Your task to perform on an android device: turn off notifications settings in the gmail app Image 0: 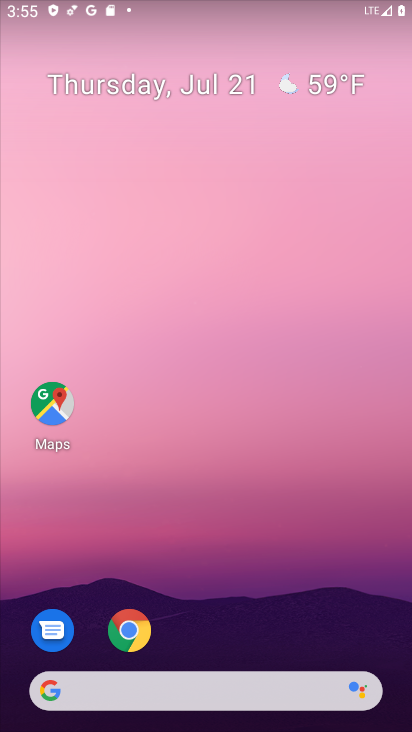
Step 0: drag from (267, 678) to (211, 61)
Your task to perform on an android device: turn off notifications settings in the gmail app Image 1: 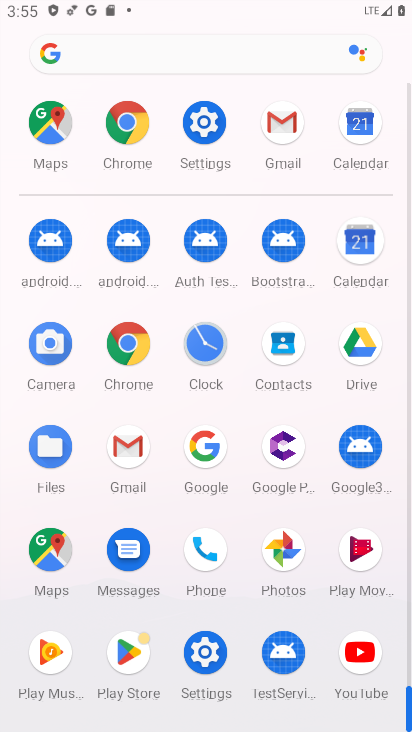
Step 1: click (115, 439)
Your task to perform on an android device: turn off notifications settings in the gmail app Image 2: 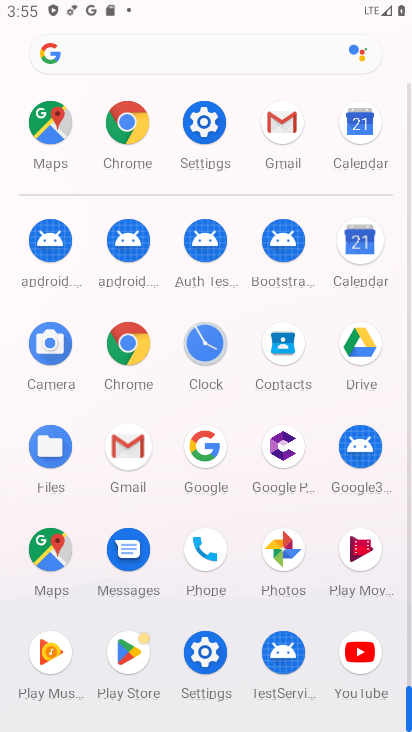
Step 2: click (115, 440)
Your task to perform on an android device: turn off notifications settings in the gmail app Image 3: 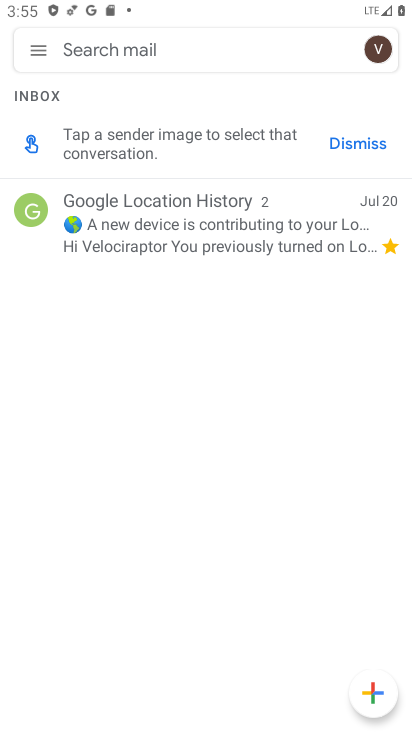
Step 3: click (44, 59)
Your task to perform on an android device: turn off notifications settings in the gmail app Image 4: 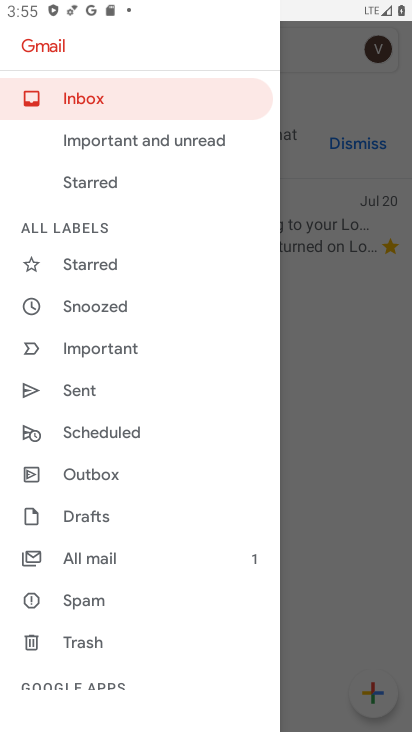
Step 4: drag from (122, 505) to (139, 38)
Your task to perform on an android device: turn off notifications settings in the gmail app Image 5: 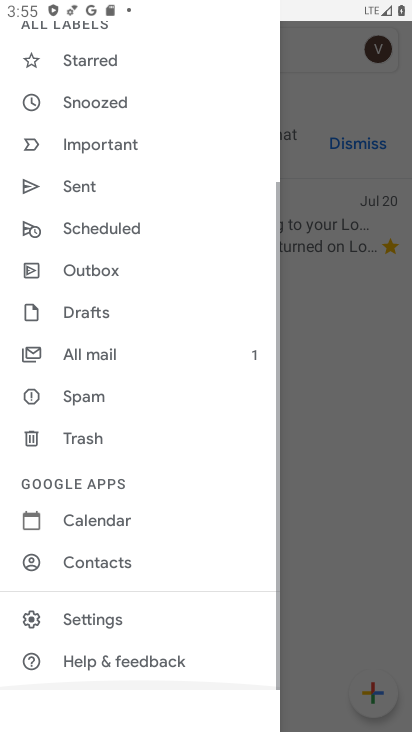
Step 5: drag from (139, 476) to (139, 239)
Your task to perform on an android device: turn off notifications settings in the gmail app Image 6: 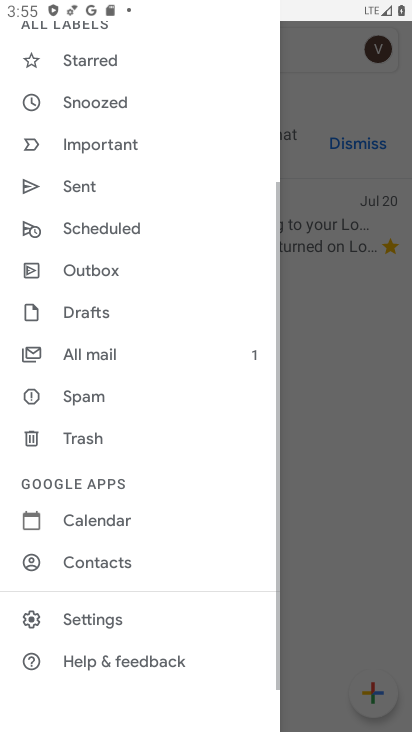
Step 6: click (113, 607)
Your task to perform on an android device: turn off notifications settings in the gmail app Image 7: 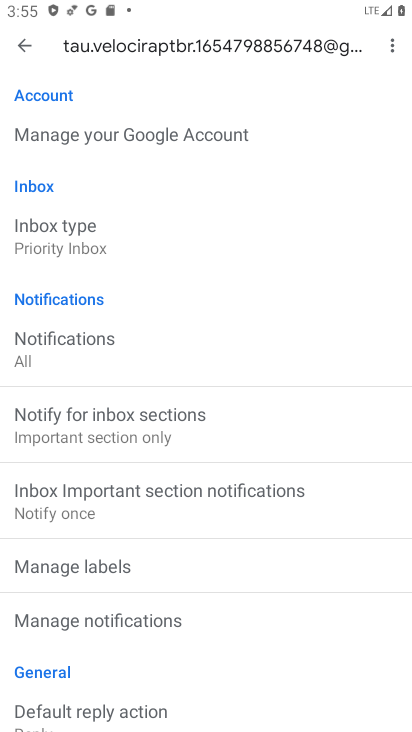
Step 7: click (55, 318)
Your task to perform on an android device: turn off notifications settings in the gmail app Image 8: 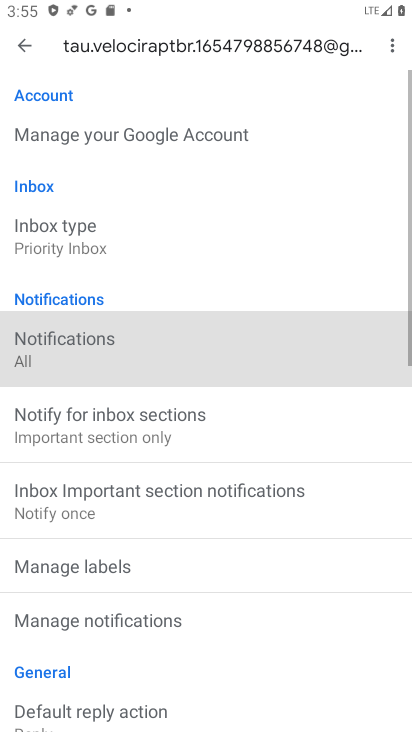
Step 8: click (52, 323)
Your task to perform on an android device: turn off notifications settings in the gmail app Image 9: 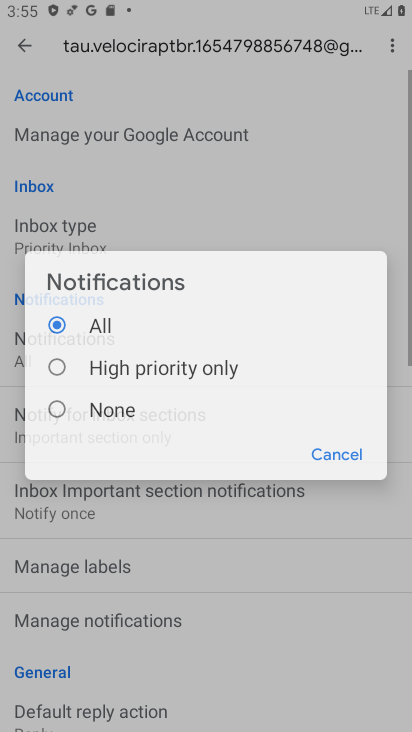
Step 9: click (52, 323)
Your task to perform on an android device: turn off notifications settings in the gmail app Image 10: 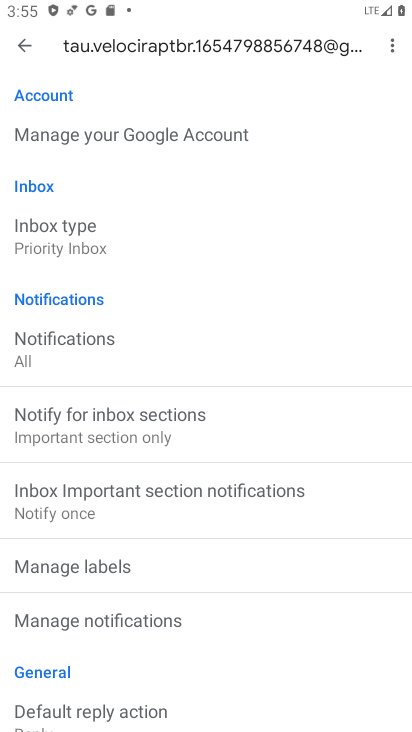
Step 10: click (60, 333)
Your task to perform on an android device: turn off notifications settings in the gmail app Image 11: 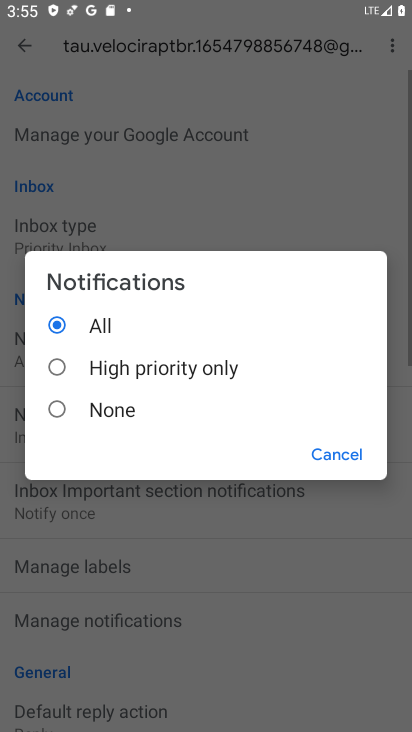
Step 11: click (54, 364)
Your task to perform on an android device: turn off notifications settings in the gmail app Image 12: 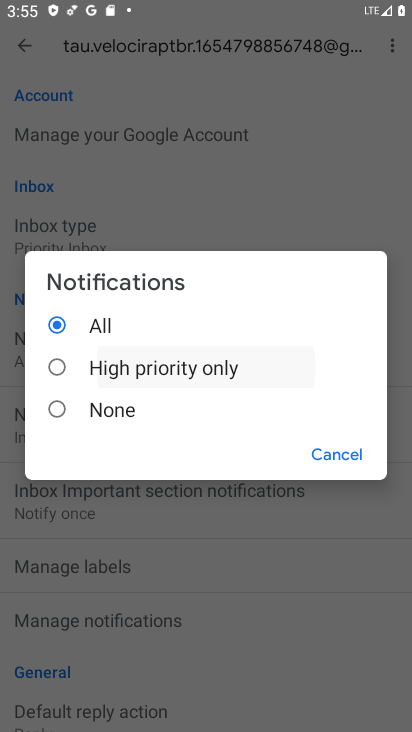
Step 12: click (54, 363)
Your task to perform on an android device: turn off notifications settings in the gmail app Image 13: 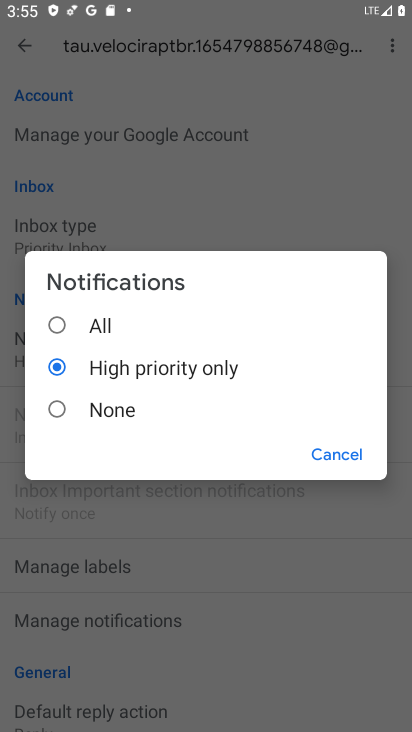
Step 13: task complete